Your task to perform on an android device: Check the news Image 0: 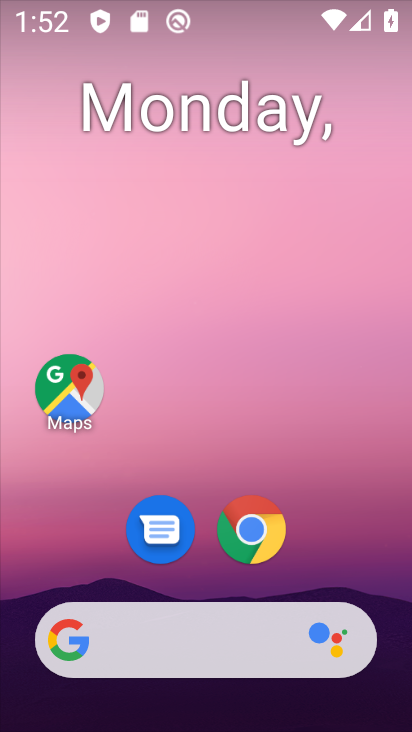
Step 0: drag from (26, 258) to (400, 240)
Your task to perform on an android device: Check the news Image 1: 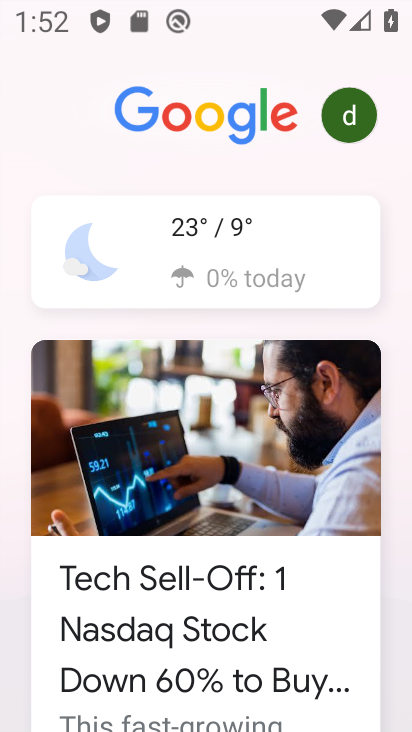
Step 1: task complete